Your task to perform on an android device: see creations saved in the google photos Image 0: 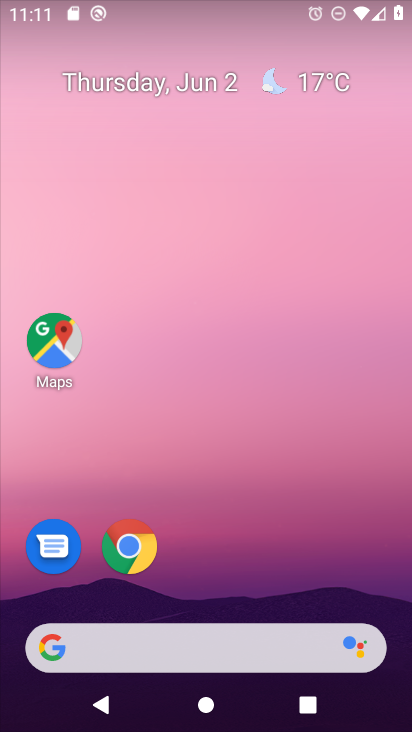
Step 0: drag from (226, 510) to (154, 43)
Your task to perform on an android device: see creations saved in the google photos Image 1: 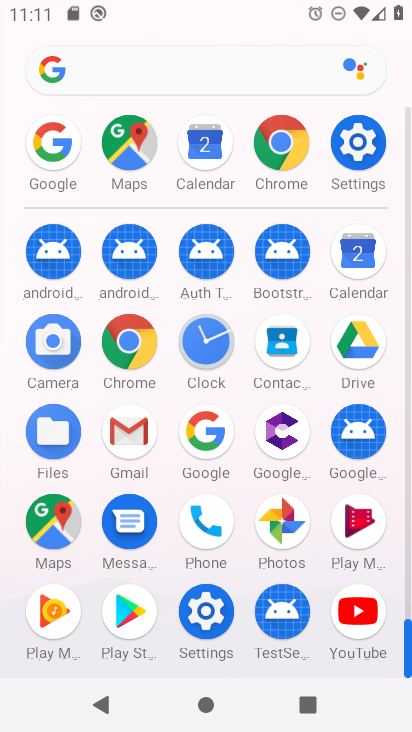
Step 1: drag from (12, 568) to (26, 214)
Your task to perform on an android device: see creations saved in the google photos Image 2: 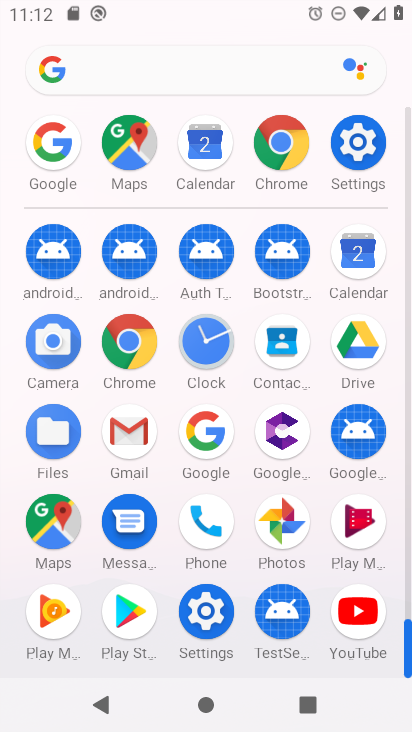
Step 2: click (283, 519)
Your task to perform on an android device: see creations saved in the google photos Image 3: 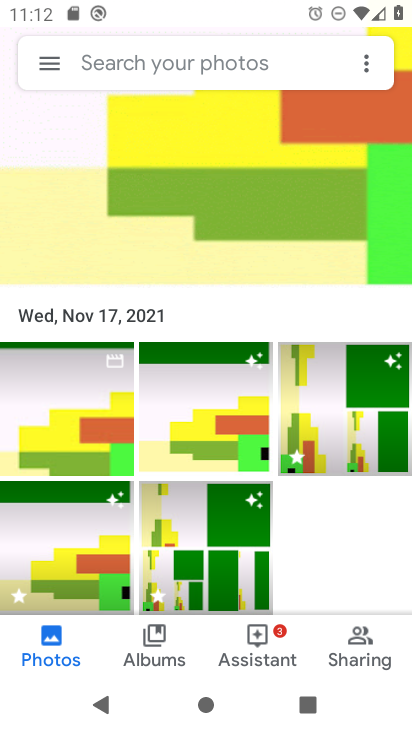
Step 3: task complete